Your task to perform on an android device: check battery use Image 0: 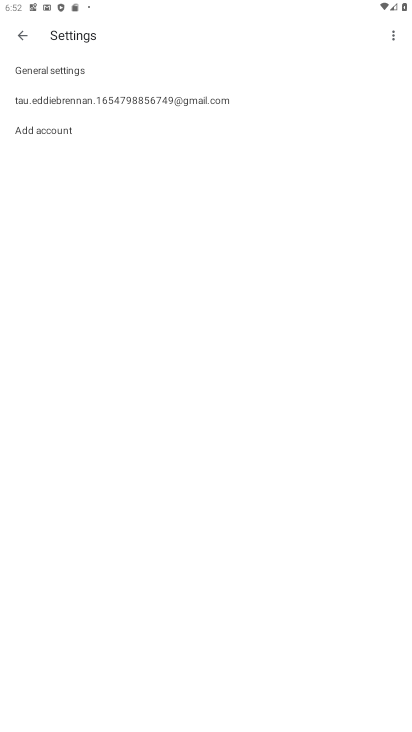
Step 0: press home button
Your task to perform on an android device: check battery use Image 1: 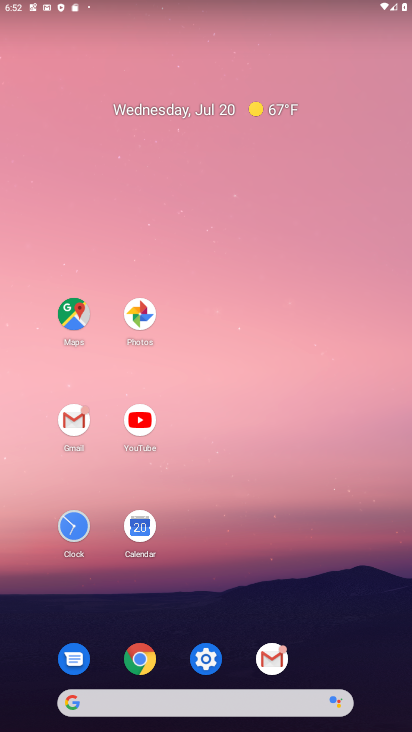
Step 1: click (204, 661)
Your task to perform on an android device: check battery use Image 2: 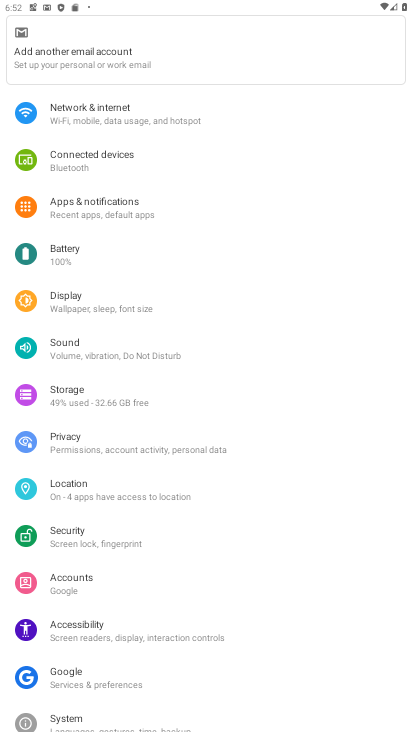
Step 2: click (59, 256)
Your task to perform on an android device: check battery use Image 3: 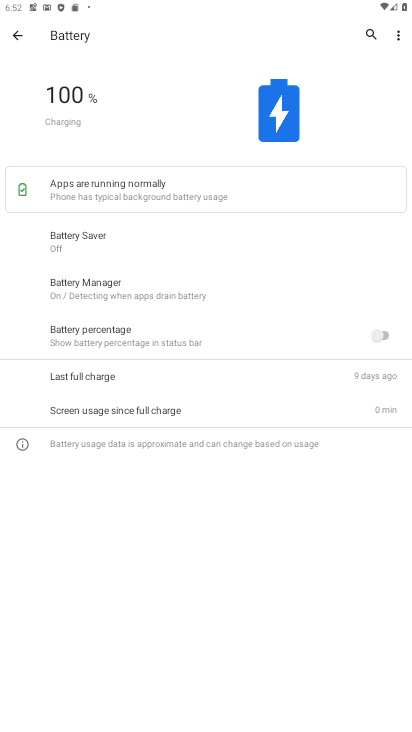
Step 3: task complete